Your task to perform on an android device: Search for pizza restaurants on Maps Image 0: 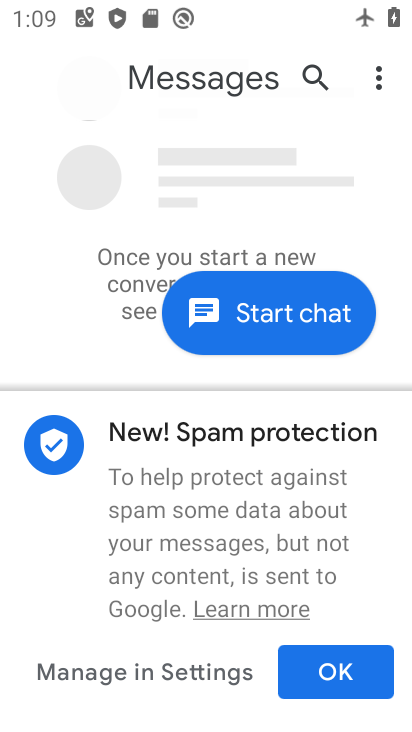
Step 0: press home button
Your task to perform on an android device: Search for pizza restaurants on Maps Image 1: 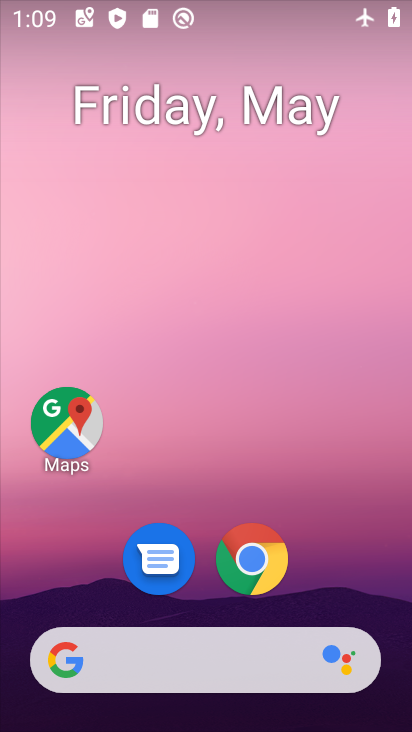
Step 1: drag from (209, 6) to (303, 455)
Your task to perform on an android device: Search for pizza restaurants on Maps Image 2: 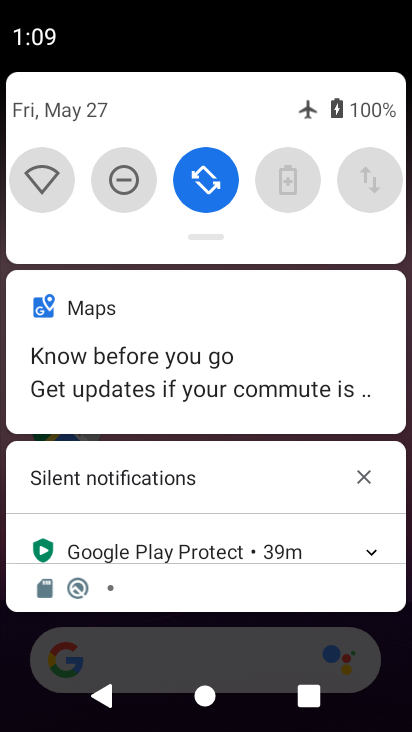
Step 2: drag from (340, 646) to (334, 202)
Your task to perform on an android device: Search for pizza restaurants on Maps Image 3: 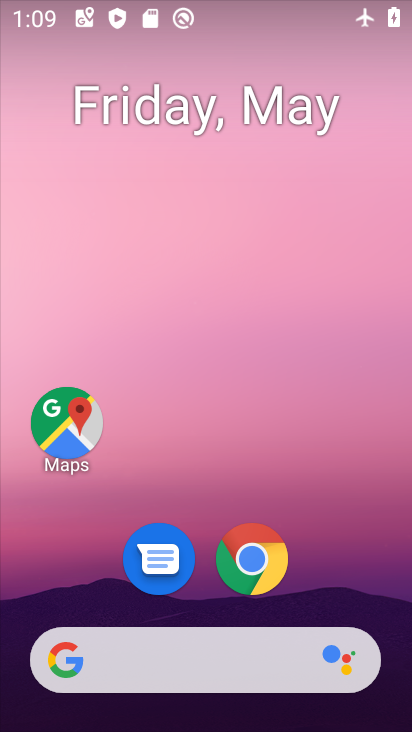
Step 3: click (52, 409)
Your task to perform on an android device: Search for pizza restaurants on Maps Image 4: 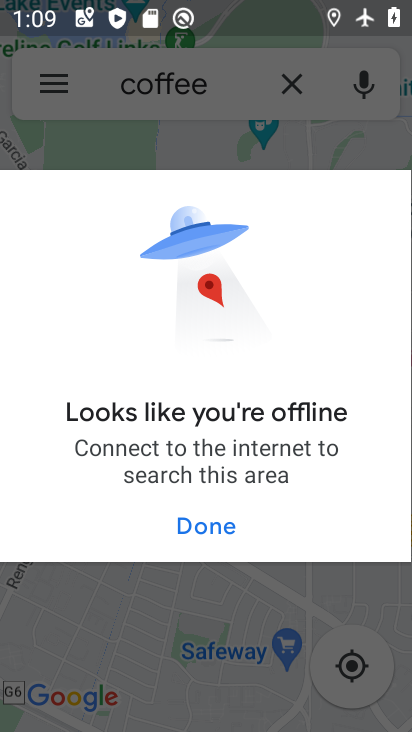
Step 4: task complete